Your task to perform on an android device: turn off translation in the chrome app Image 0: 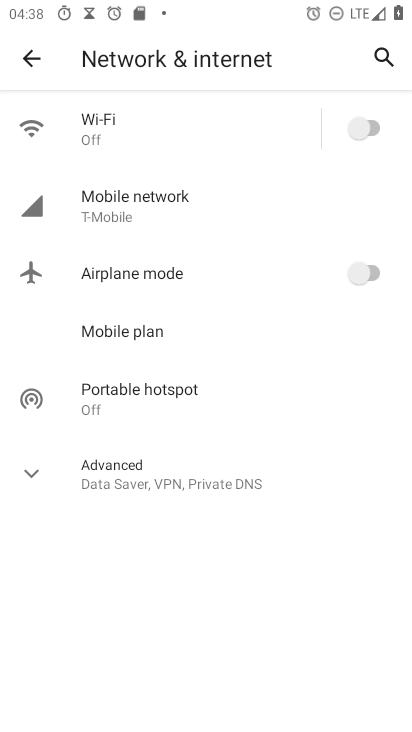
Step 0: press home button
Your task to perform on an android device: turn off translation in the chrome app Image 1: 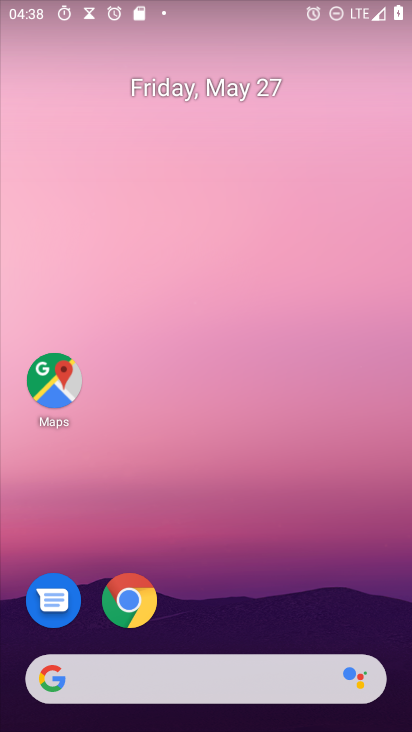
Step 1: click (131, 607)
Your task to perform on an android device: turn off translation in the chrome app Image 2: 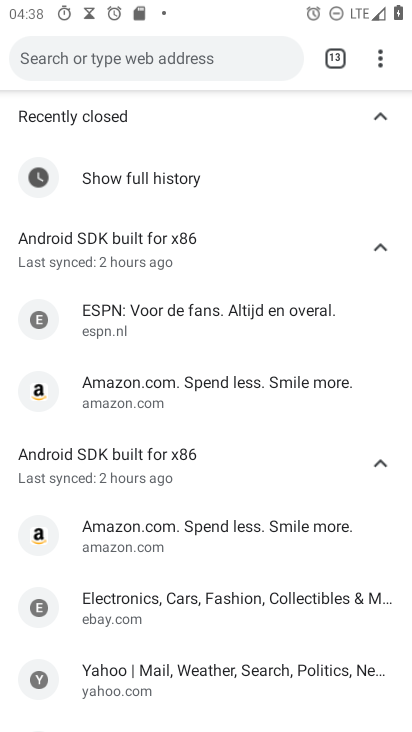
Step 2: click (381, 61)
Your task to perform on an android device: turn off translation in the chrome app Image 3: 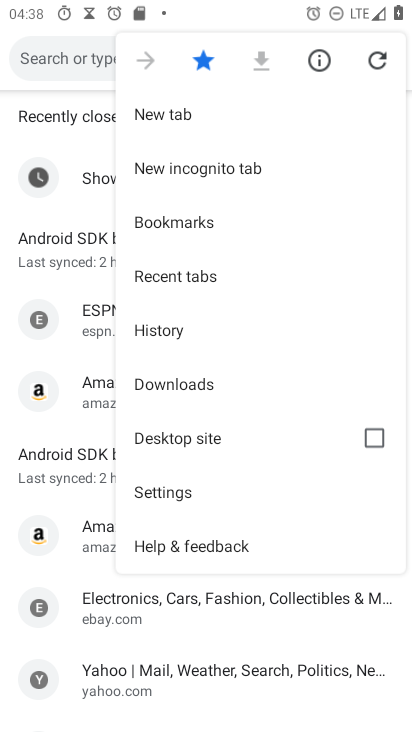
Step 3: click (172, 493)
Your task to perform on an android device: turn off translation in the chrome app Image 4: 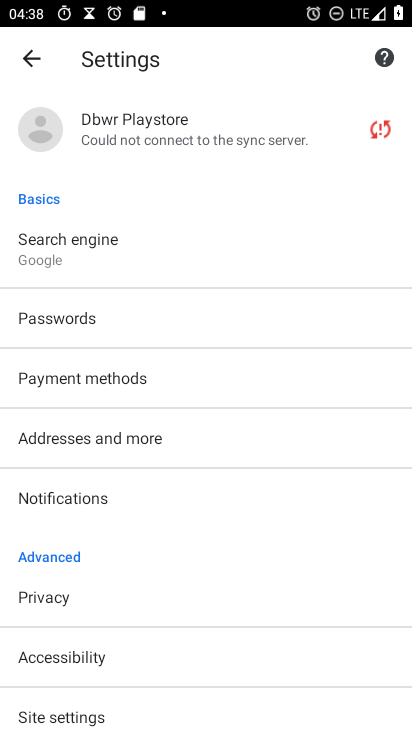
Step 4: drag from (192, 705) to (214, 376)
Your task to perform on an android device: turn off translation in the chrome app Image 5: 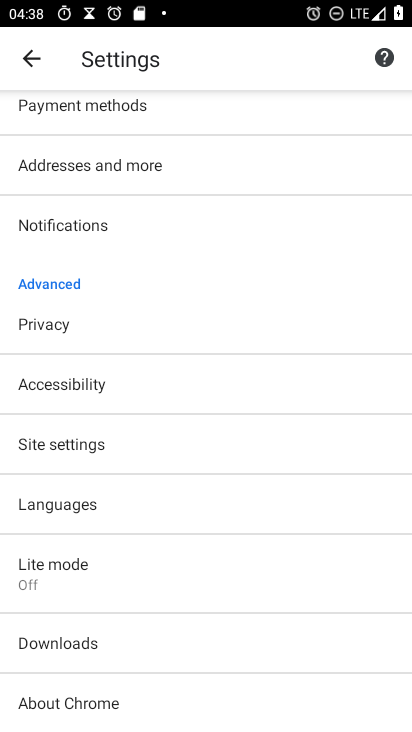
Step 5: click (60, 502)
Your task to perform on an android device: turn off translation in the chrome app Image 6: 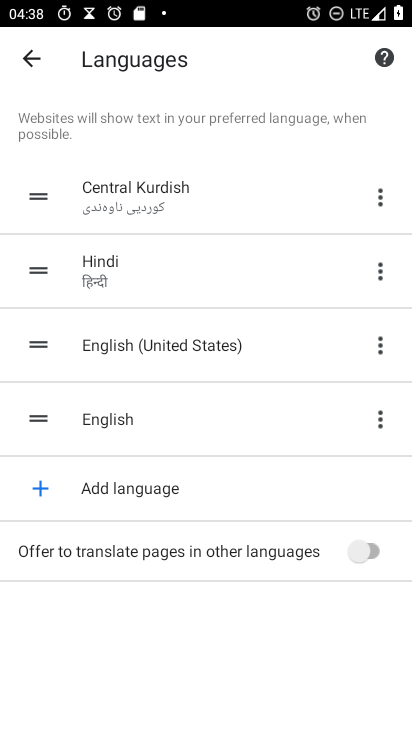
Step 6: task complete